Your task to perform on an android device: check data usage Image 0: 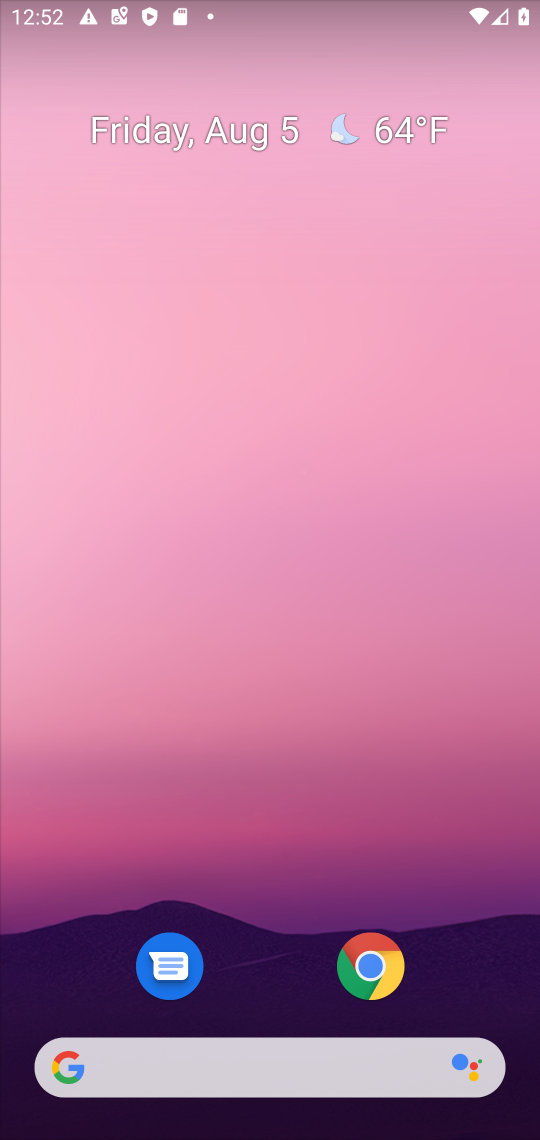
Step 0: drag from (276, 907) to (330, 50)
Your task to perform on an android device: check data usage Image 1: 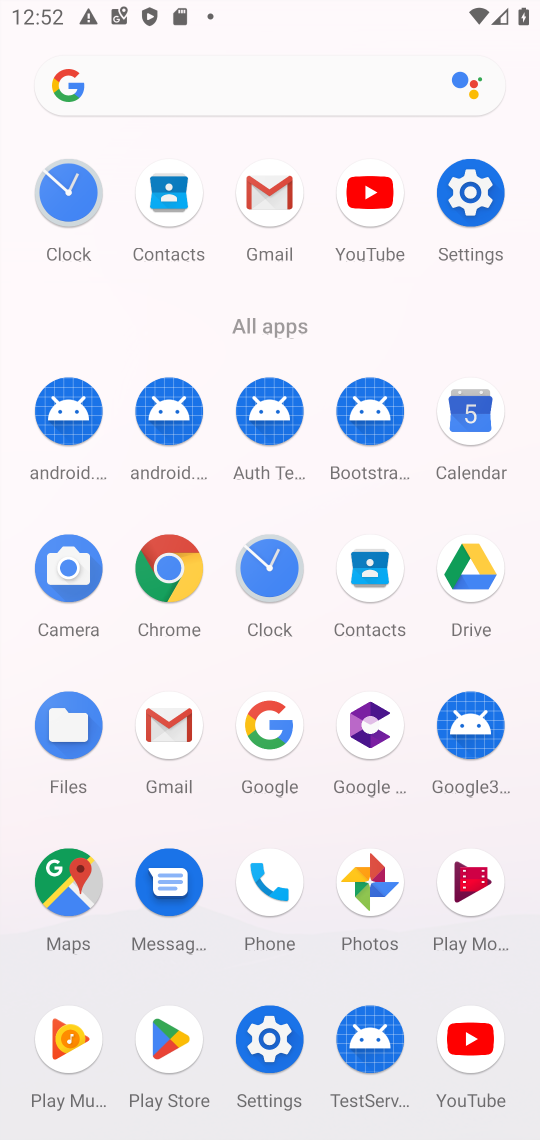
Step 1: click (470, 193)
Your task to perform on an android device: check data usage Image 2: 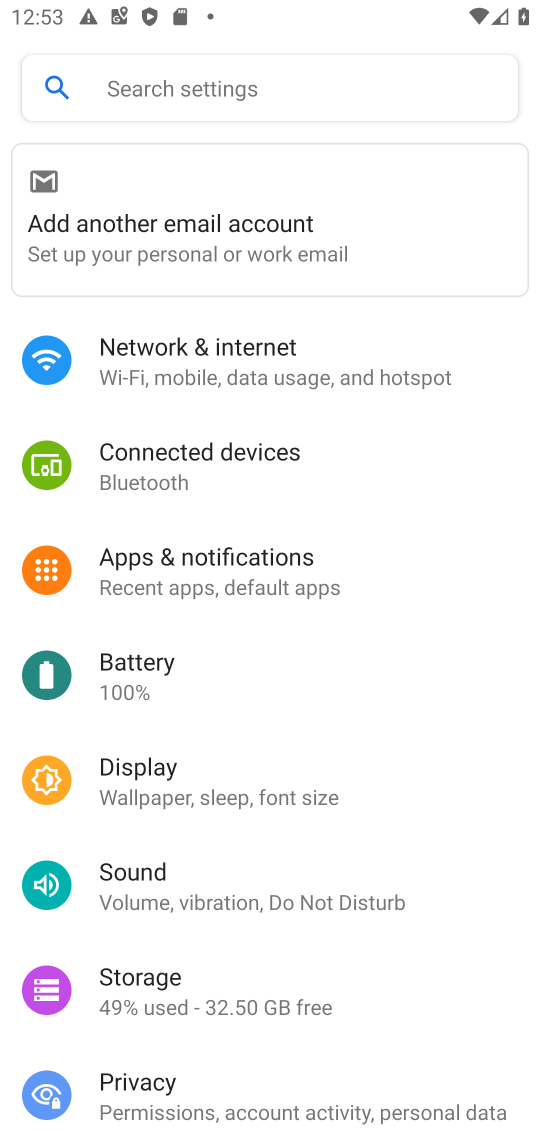
Step 2: click (296, 363)
Your task to perform on an android device: check data usage Image 3: 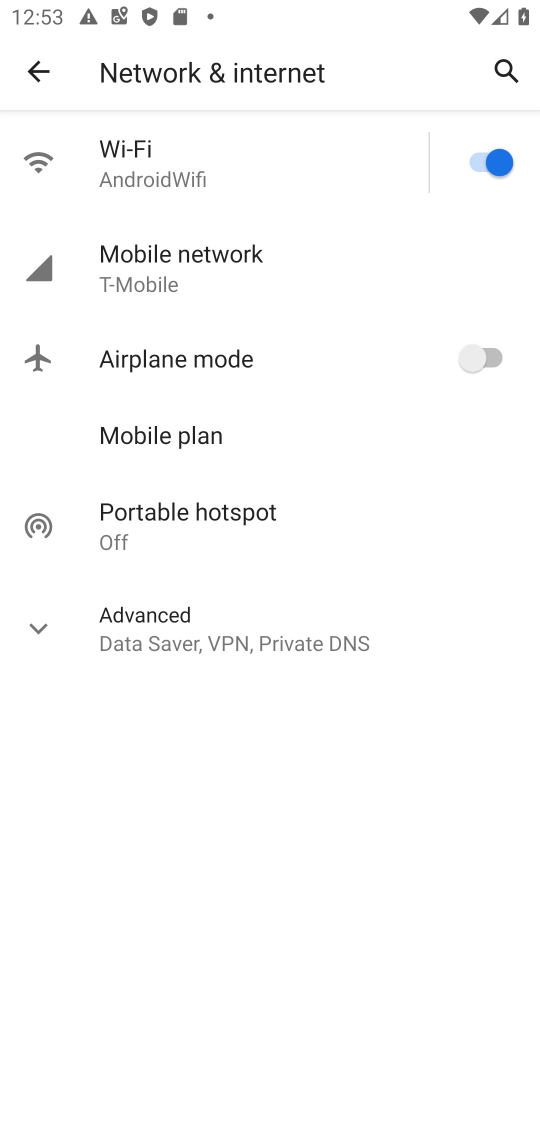
Step 3: click (258, 264)
Your task to perform on an android device: check data usage Image 4: 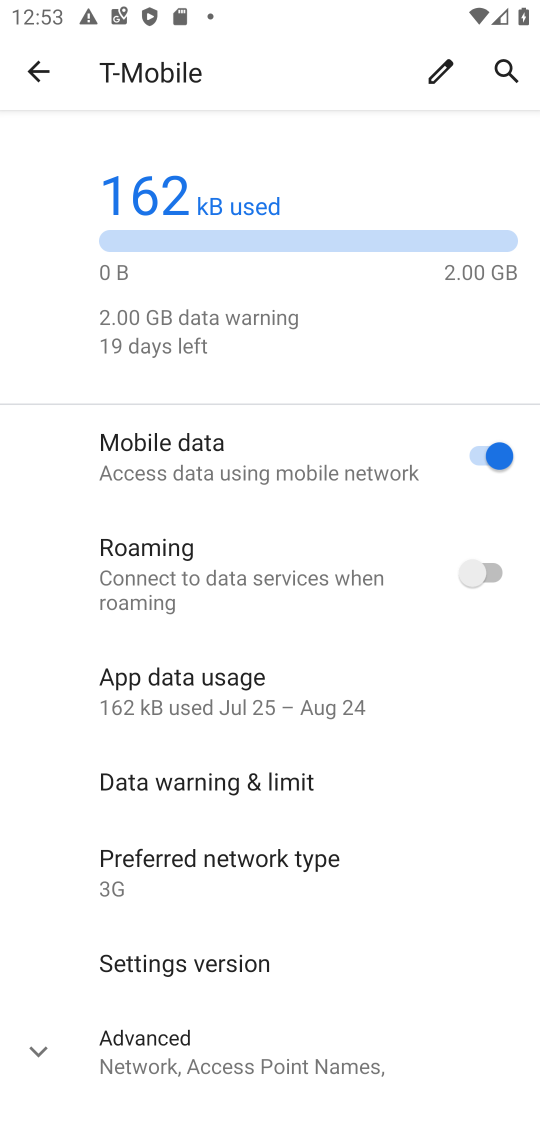
Step 4: task complete